Your task to perform on an android device: turn off javascript in the chrome app Image 0: 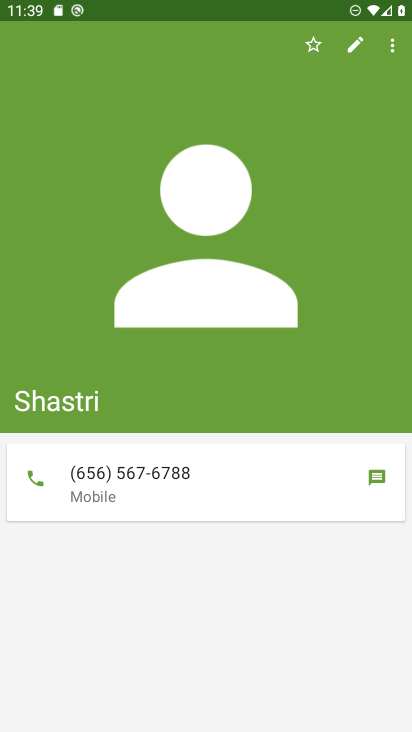
Step 0: press home button
Your task to perform on an android device: turn off javascript in the chrome app Image 1: 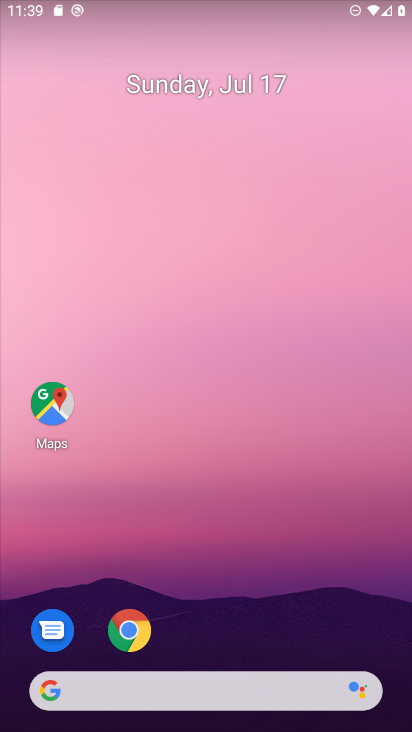
Step 1: click (127, 634)
Your task to perform on an android device: turn off javascript in the chrome app Image 2: 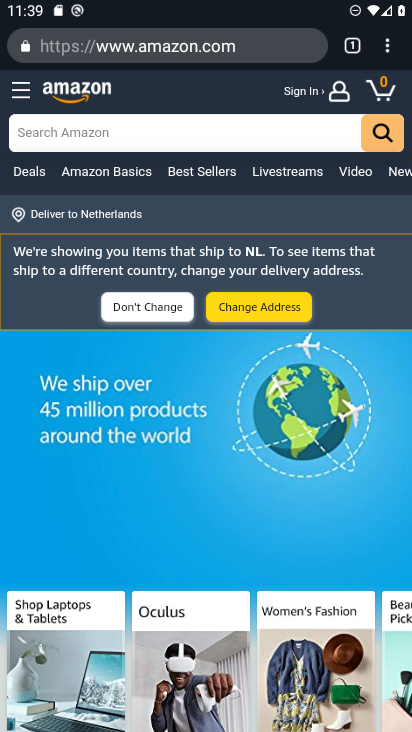
Step 2: click (386, 45)
Your task to perform on an android device: turn off javascript in the chrome app Image 3: 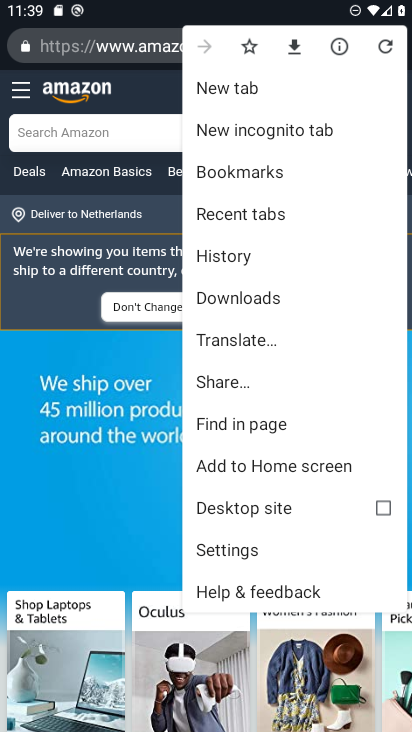
Step 3: click (220, 552)
Your task to perform on an android device: turn off javascript in the chrome app Image 4: 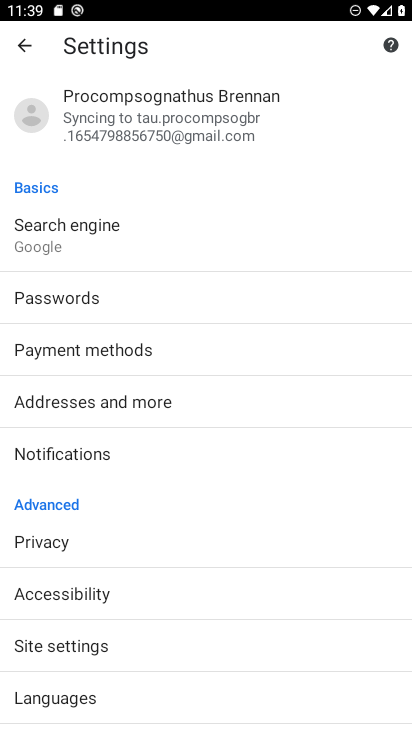
Step 4: click (107, 649)
Your task to perform on an android device: turn off javascript in the chrome app Image 5: 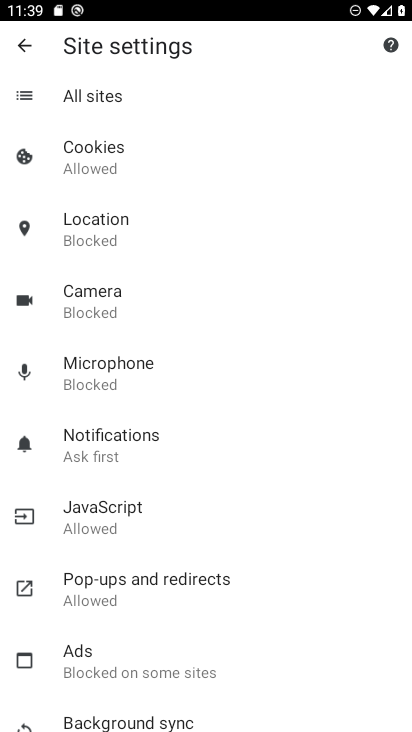
Step 5: click (117, 523)
Your task to perform on an android device: turn off javascript in the chrome app Image 6: 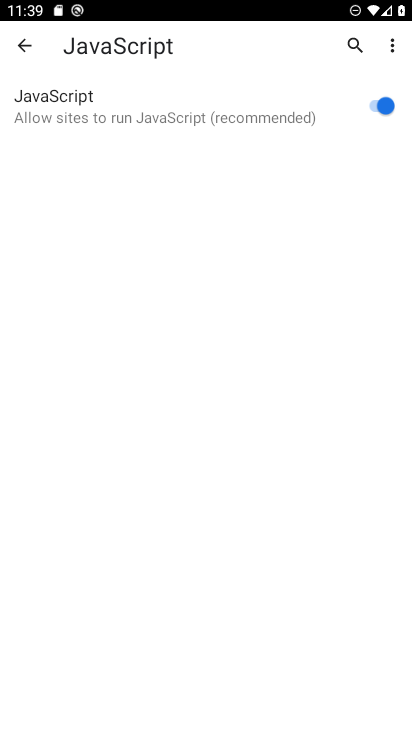
Step 6: click (369, 112)
Your task to perform on an android device: turn off javascript in the chrome app Image 7: 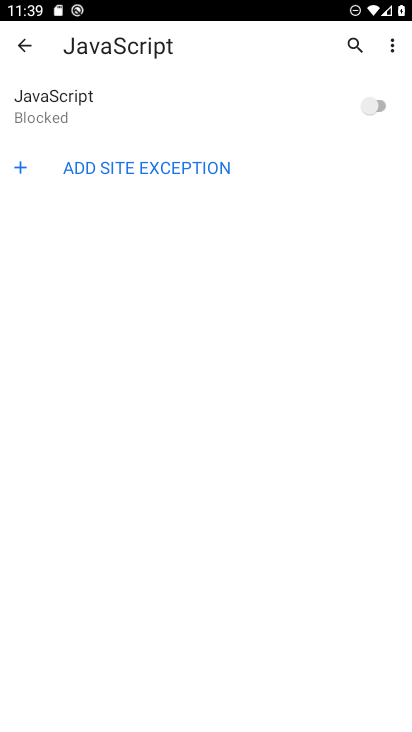
Step 7: task complete